Your task to perform on an android device: toggle wifi Image 0: 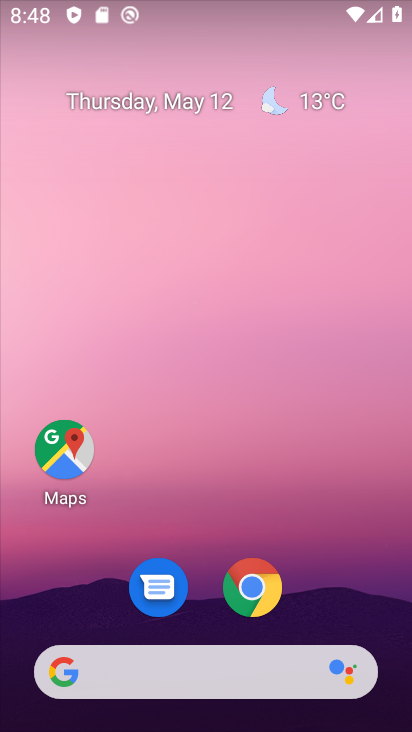
Step 0: drag from (400, 510) to (377, 109)
Your task to perform on an android device: toggle wifi Image 1: 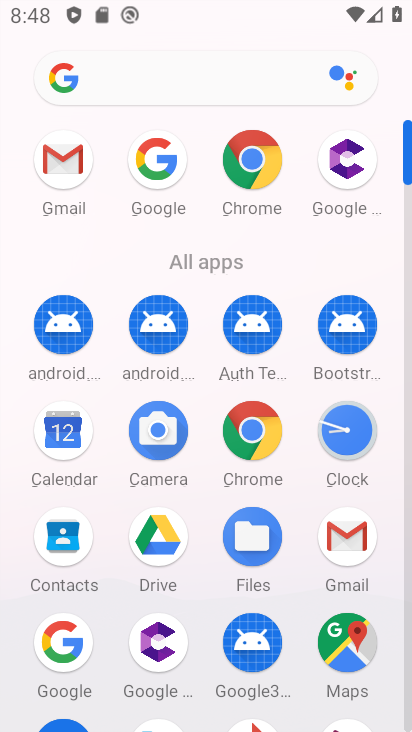
Step 1: drag from (390, 484) to (356, 100)
Your task to perform on an android device: toggle wifi Image 2: 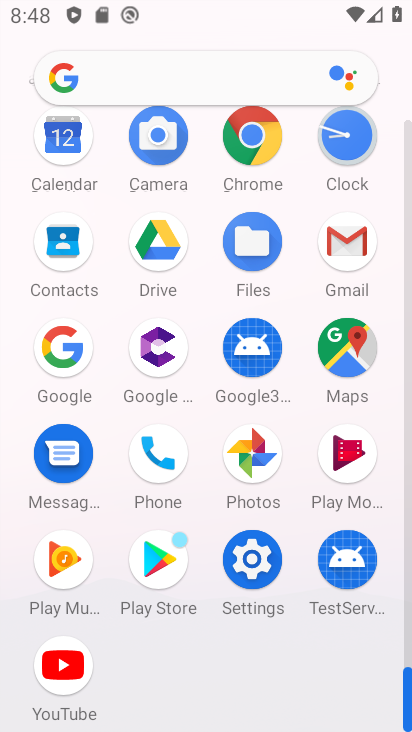
Step 2: click (271, 589)
Your task to perform on an android device: toggle wifi Image 3: 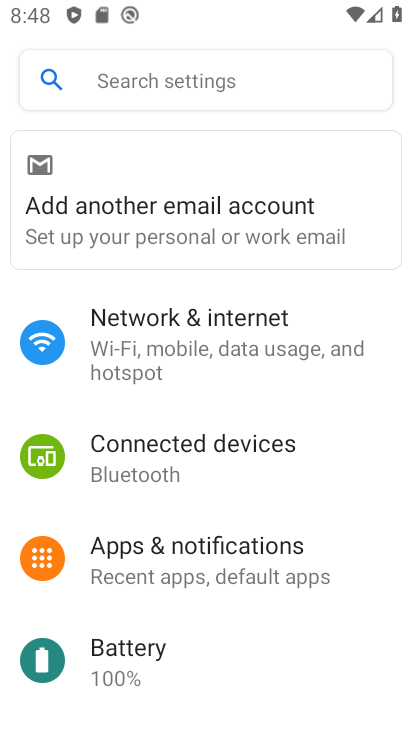
Step 3: click (162, 356)
Your task to perform on an android device: toggle wifi Image 4: 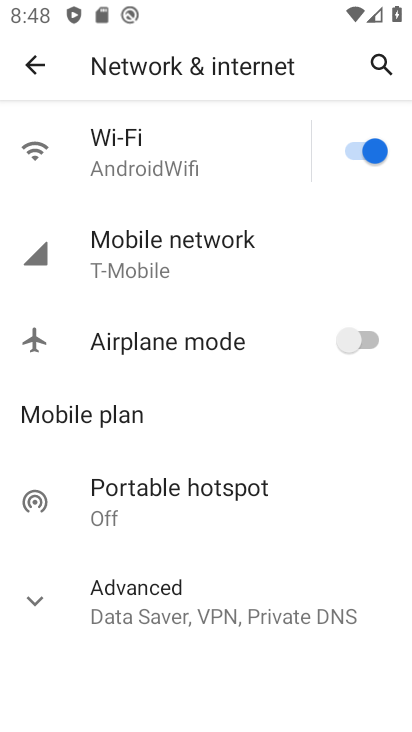
Step 4: click (341, 154)
Your task to perform on an android device: toggle wifi Image 5: 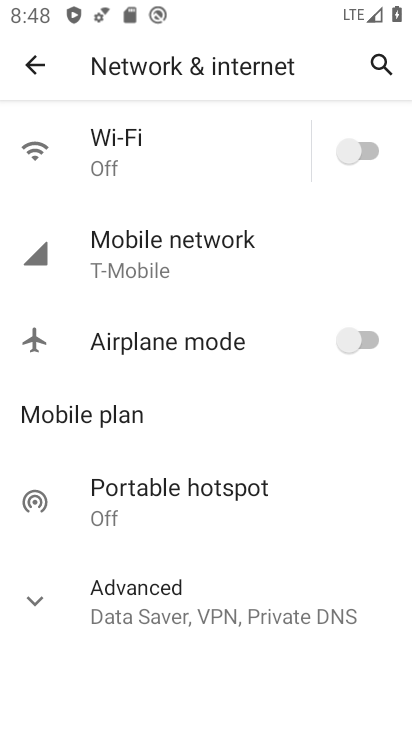
Step 5: task complete